Your task to perform on an android device: uninstall "Grab" Image 0: 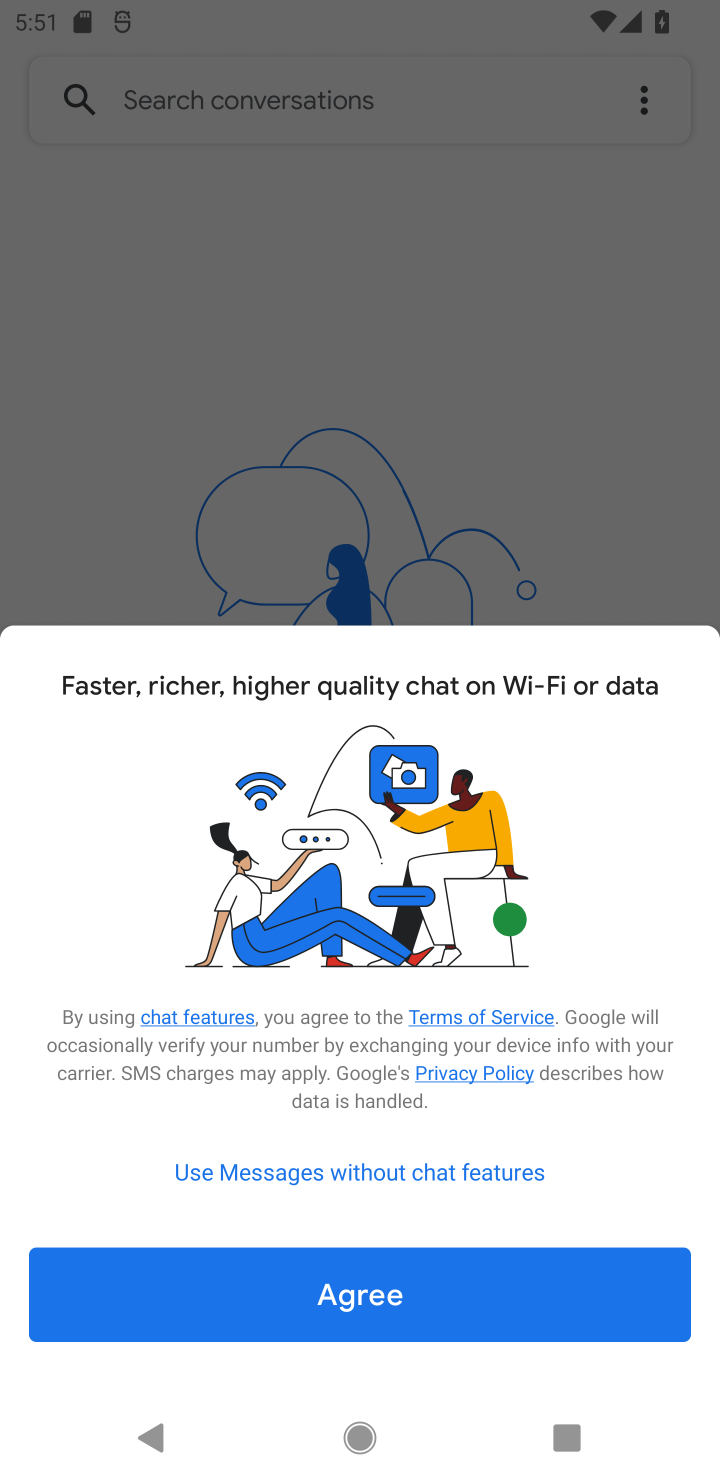
Step 0: press home button
Your task to perform on an android device: uninstall "Grab" Image 1: 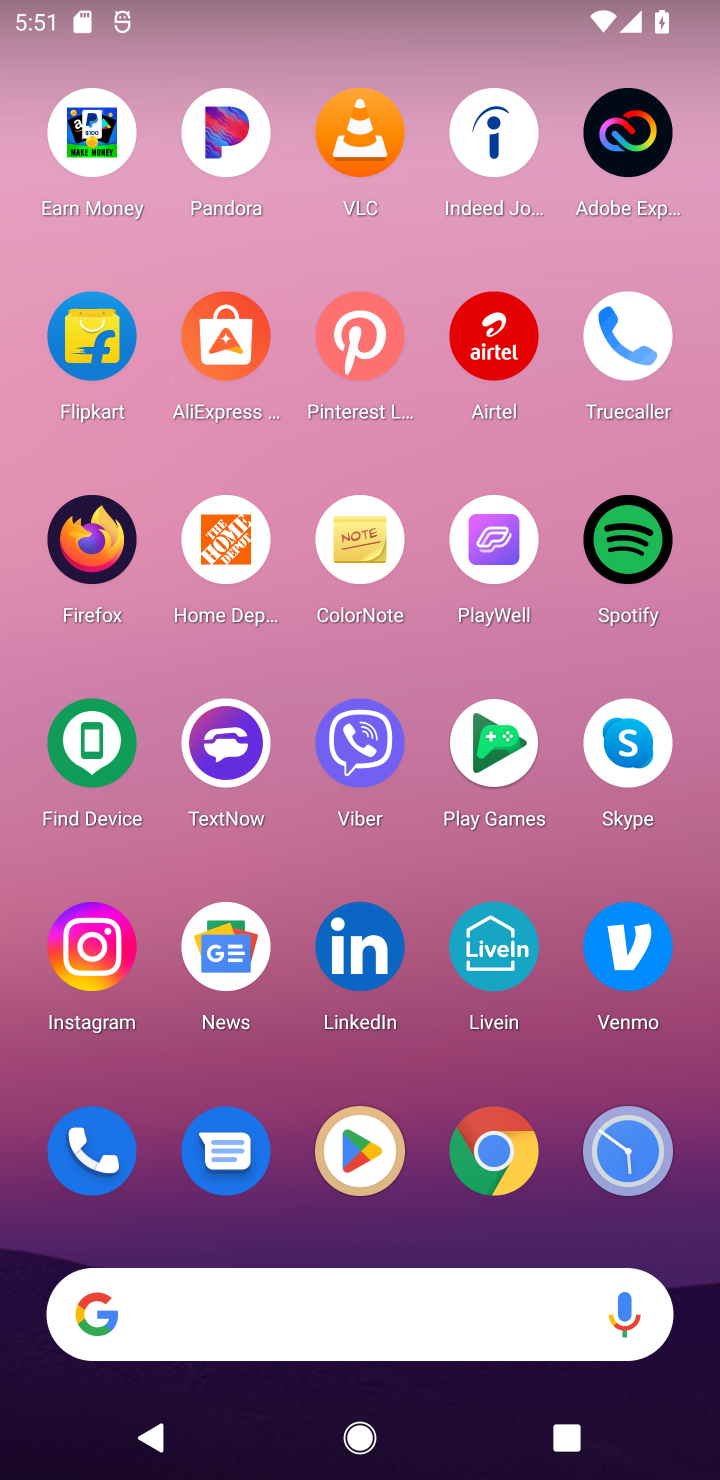
Step 1: click (380, 1135)
Your task to perform on an android device: uninstall "Grab" Image 2: 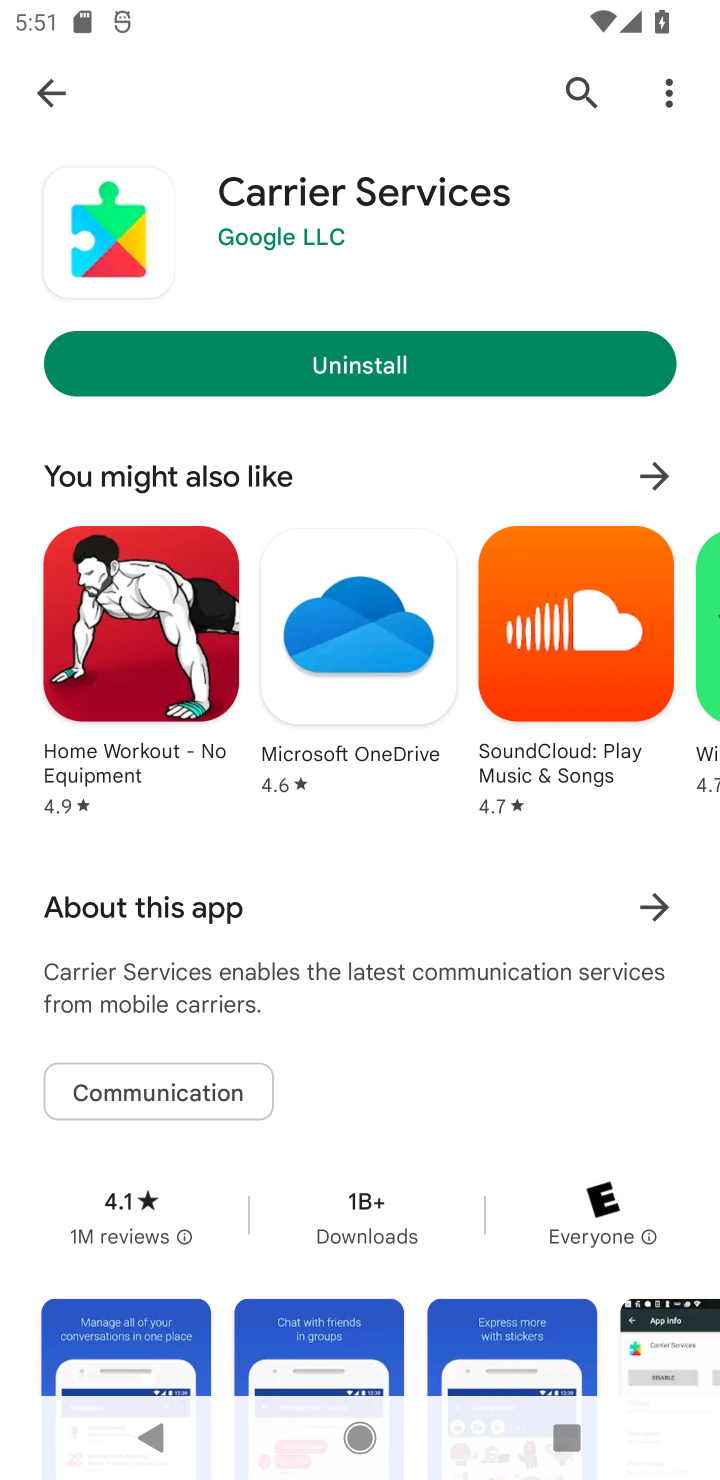
Step 2: click (597, 127)
Your task to perform on an android device: uninstall "Grab" Image 3: 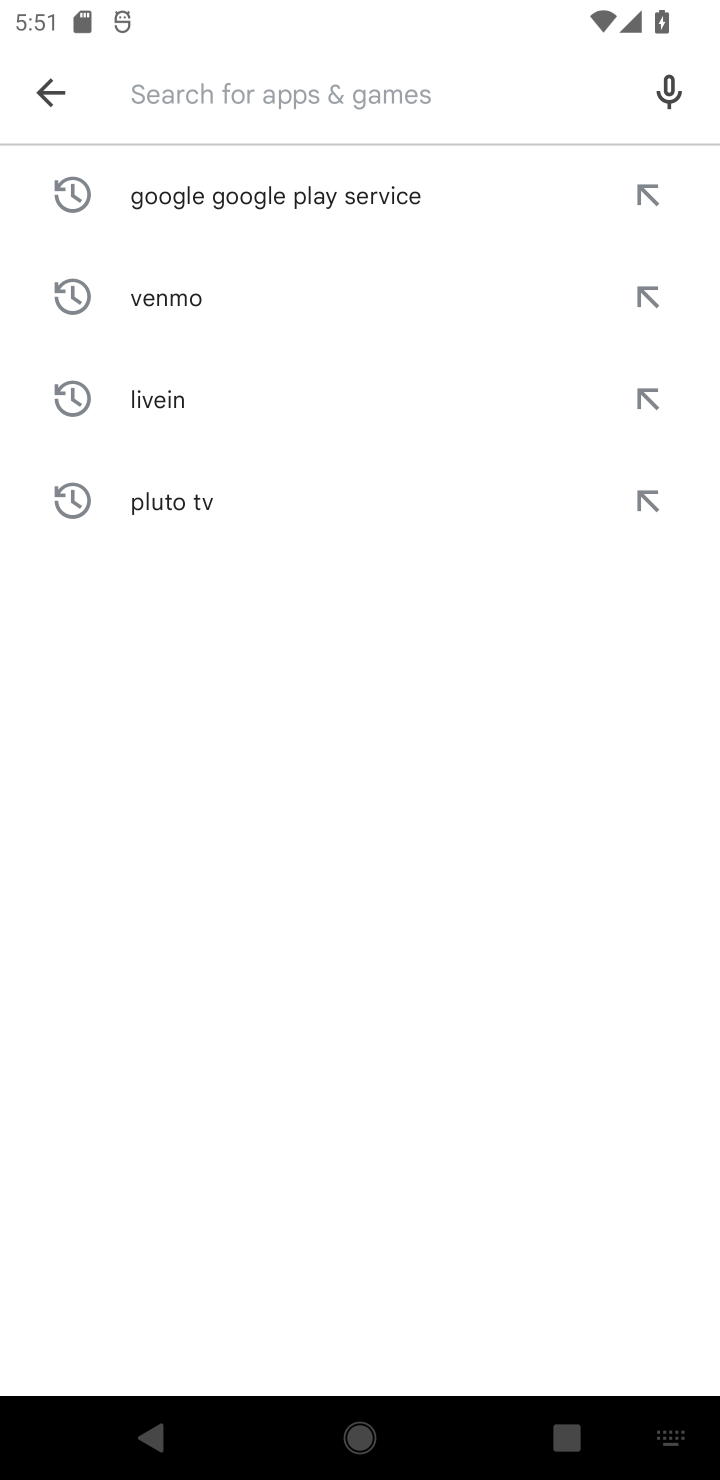
Step 3: type "grab"
Your task to perform on an android device: uninstall "Grab" Image 4: 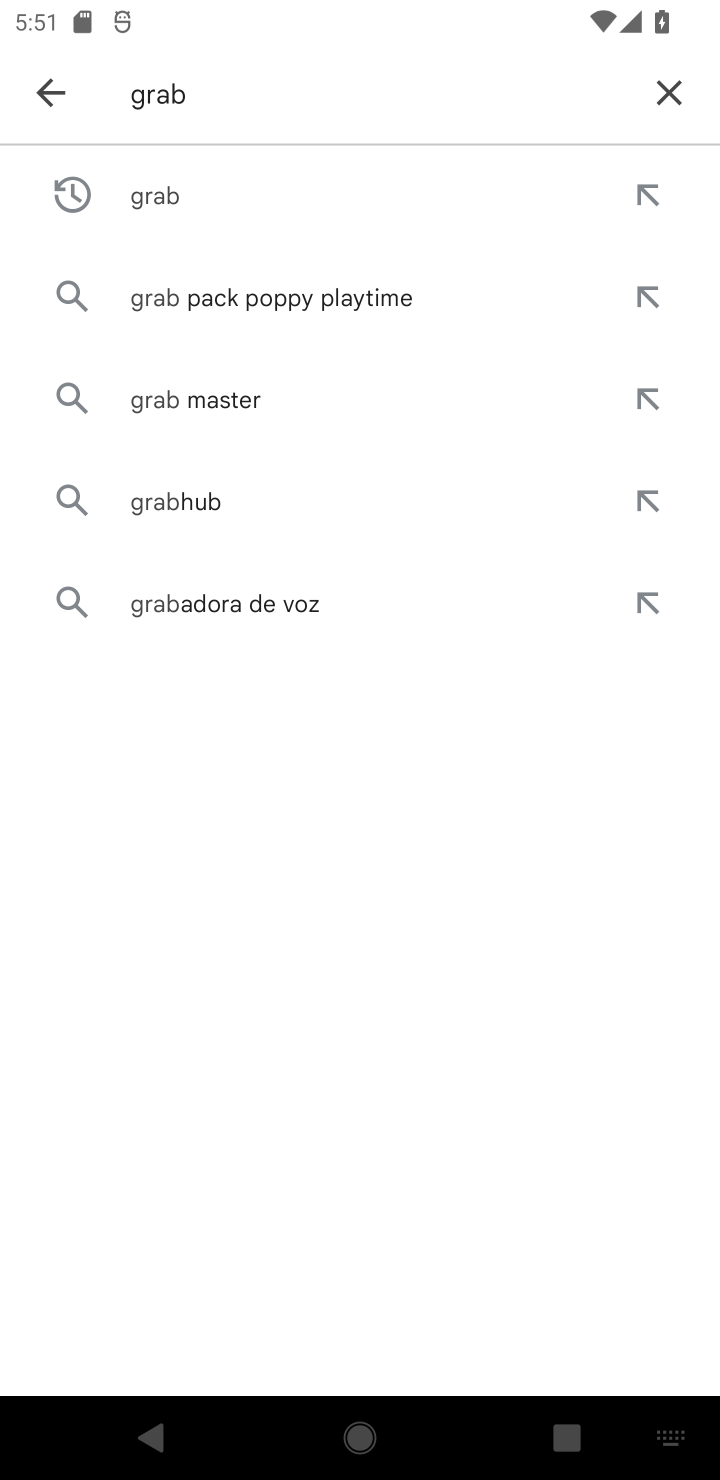
Step 4: click (358, 230)
Your task to perform on an android device: uninstall "Grab" Image 5: 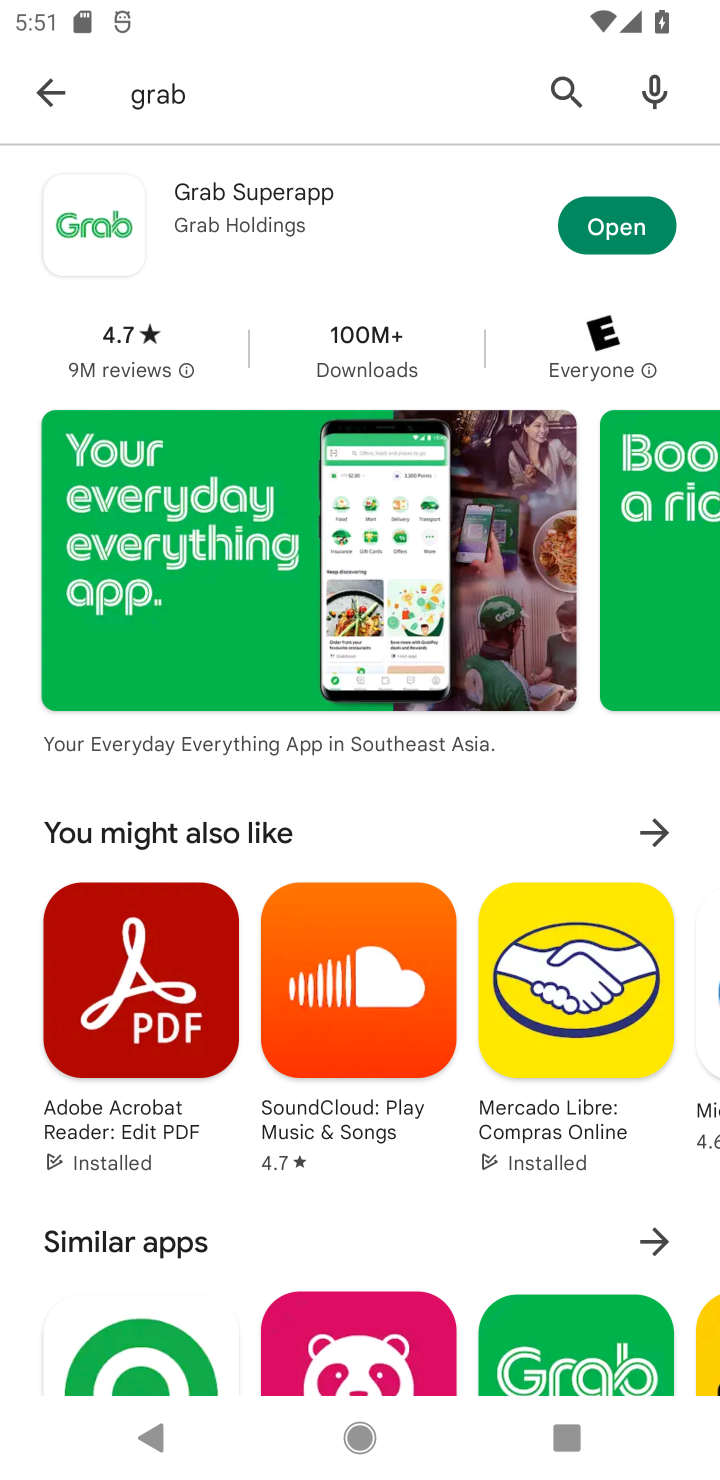
Step 5: click (358, 186)
Your task to perform on an android device: uninstall "Grab" Image 6: 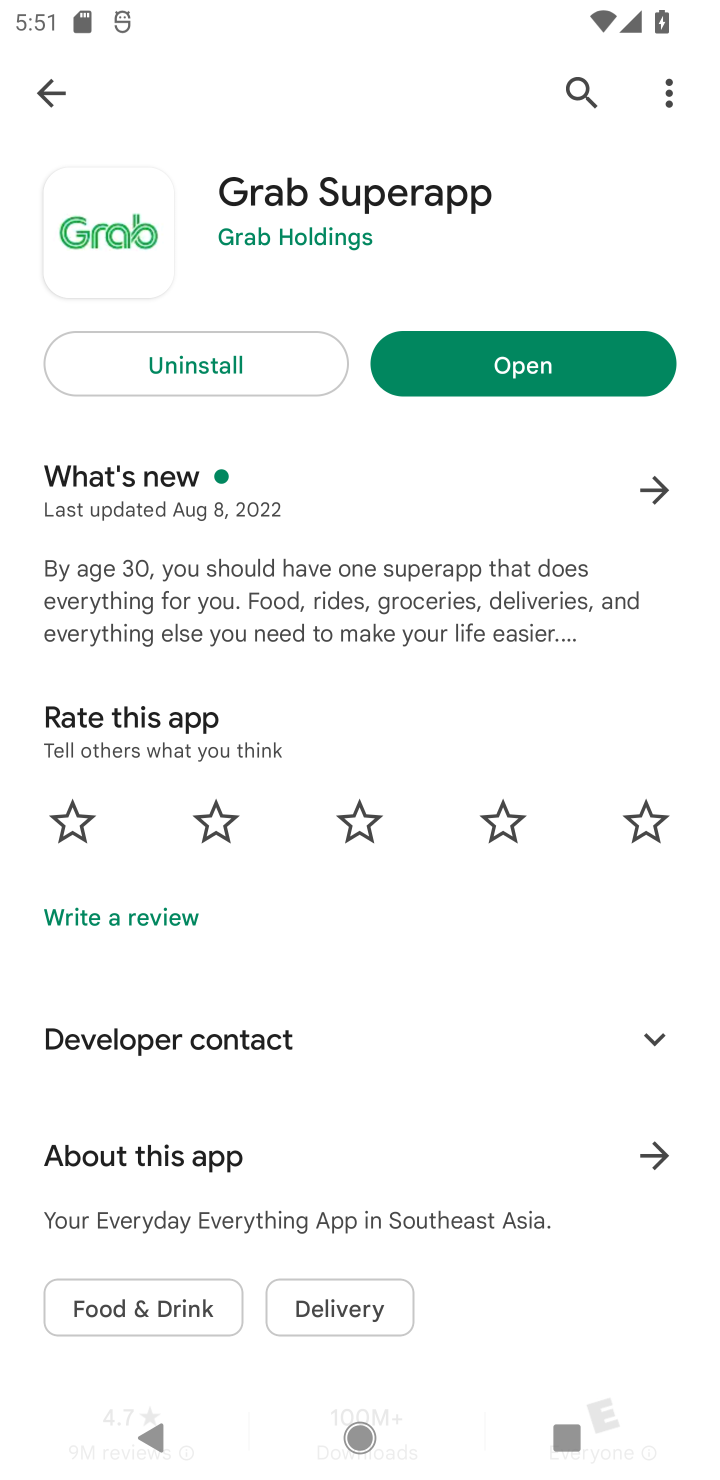
Step 6: click (148, 398)
Your task to perform on an android device: uninstall "Grab" Image 7: 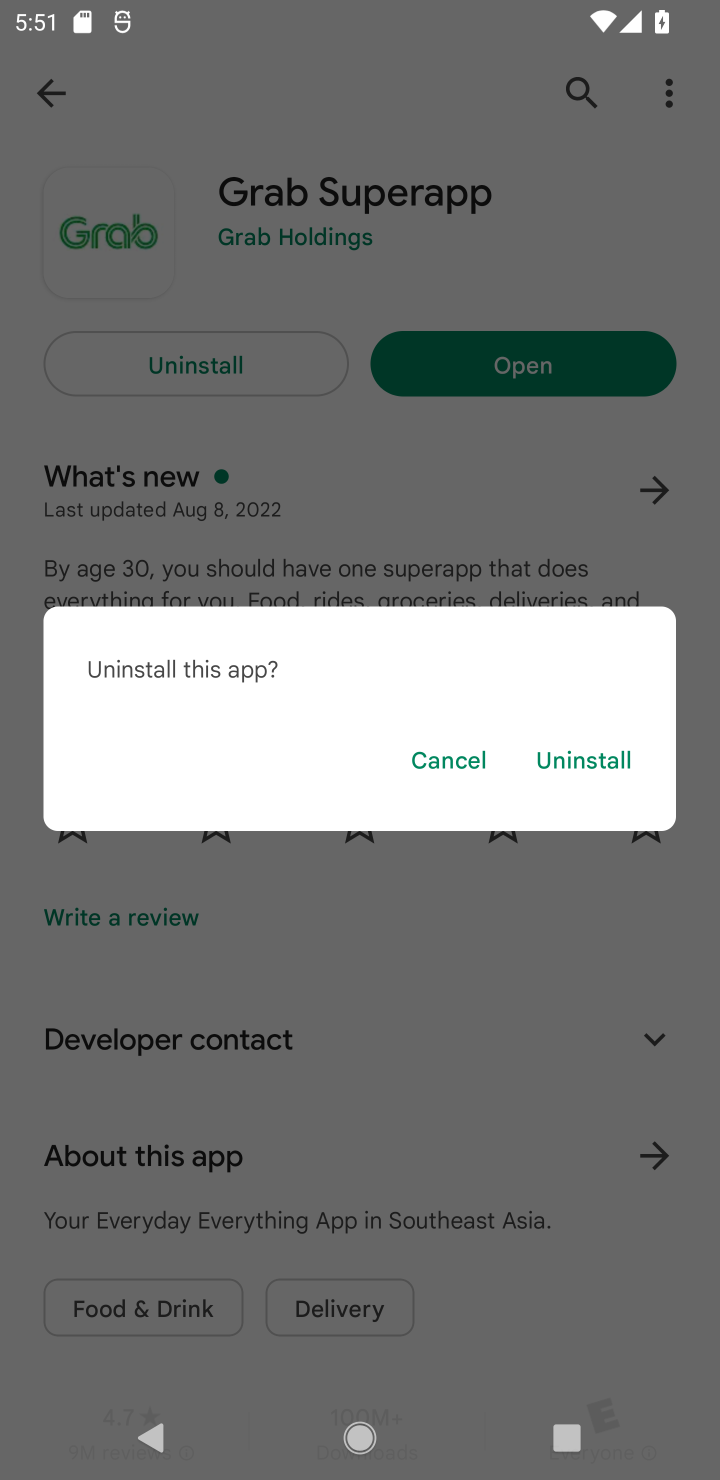
Step 7: click (627, 745)
Your task to perform on an android device: uninstall "Grab" Image 8: 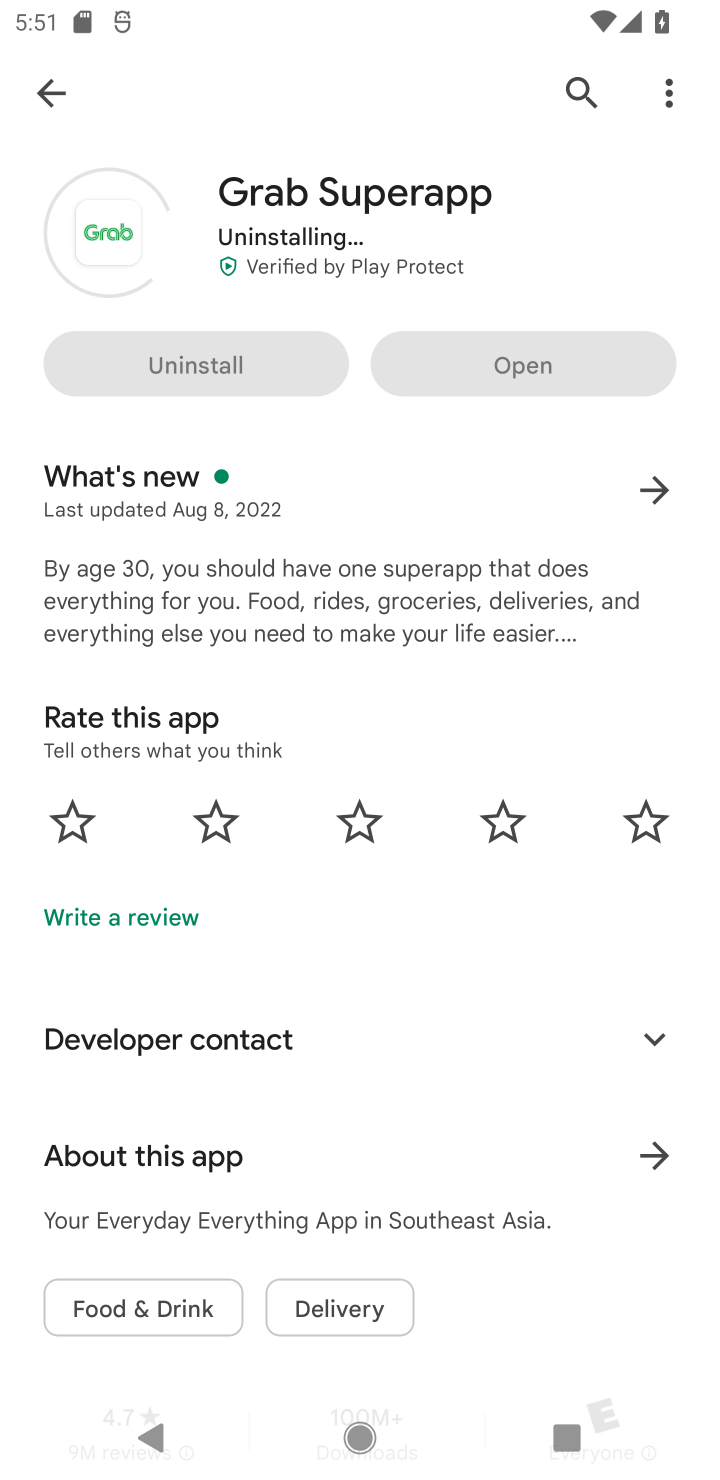
Step 8: task complete